Your task to perform on an android device: What's the news in French Guiana? Image 0: 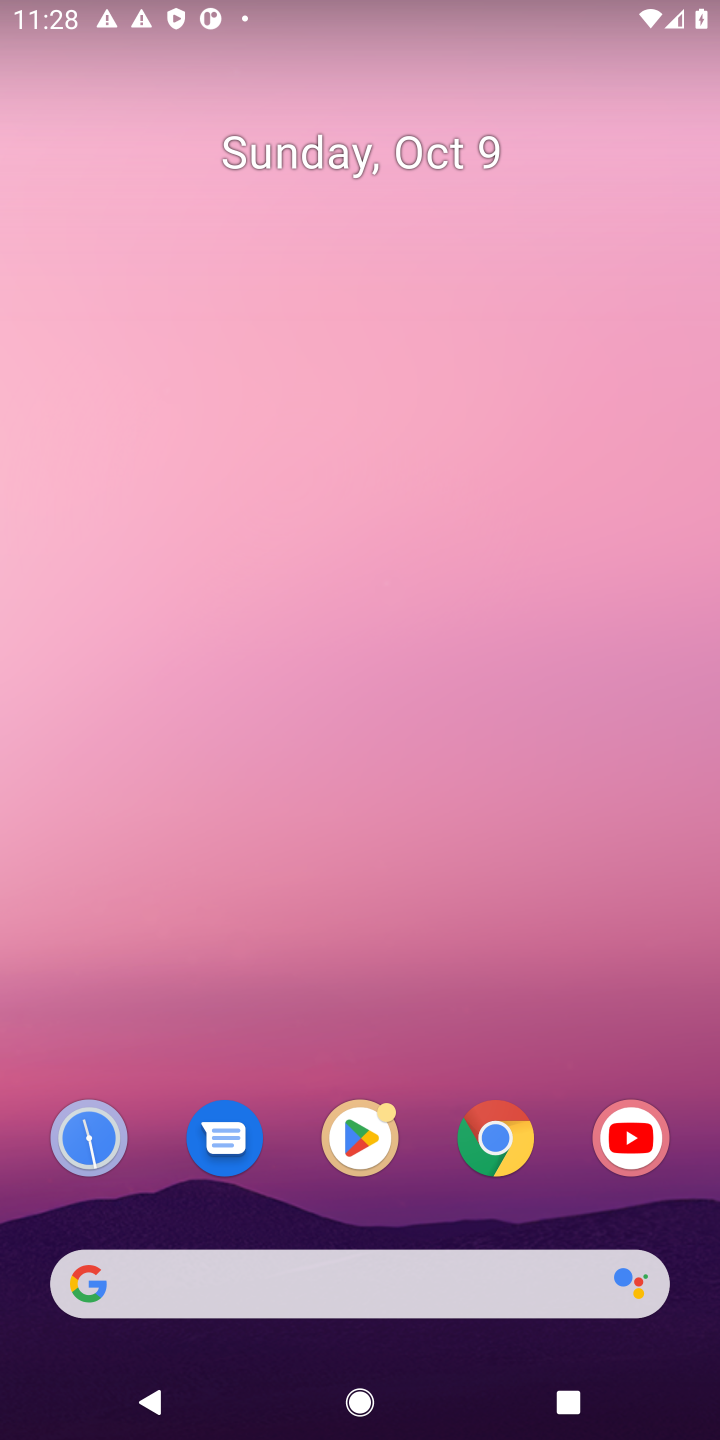
Step 0: click (693, 374)
Your task to perform on an android device: What's the news in French Guiana? Image 1: 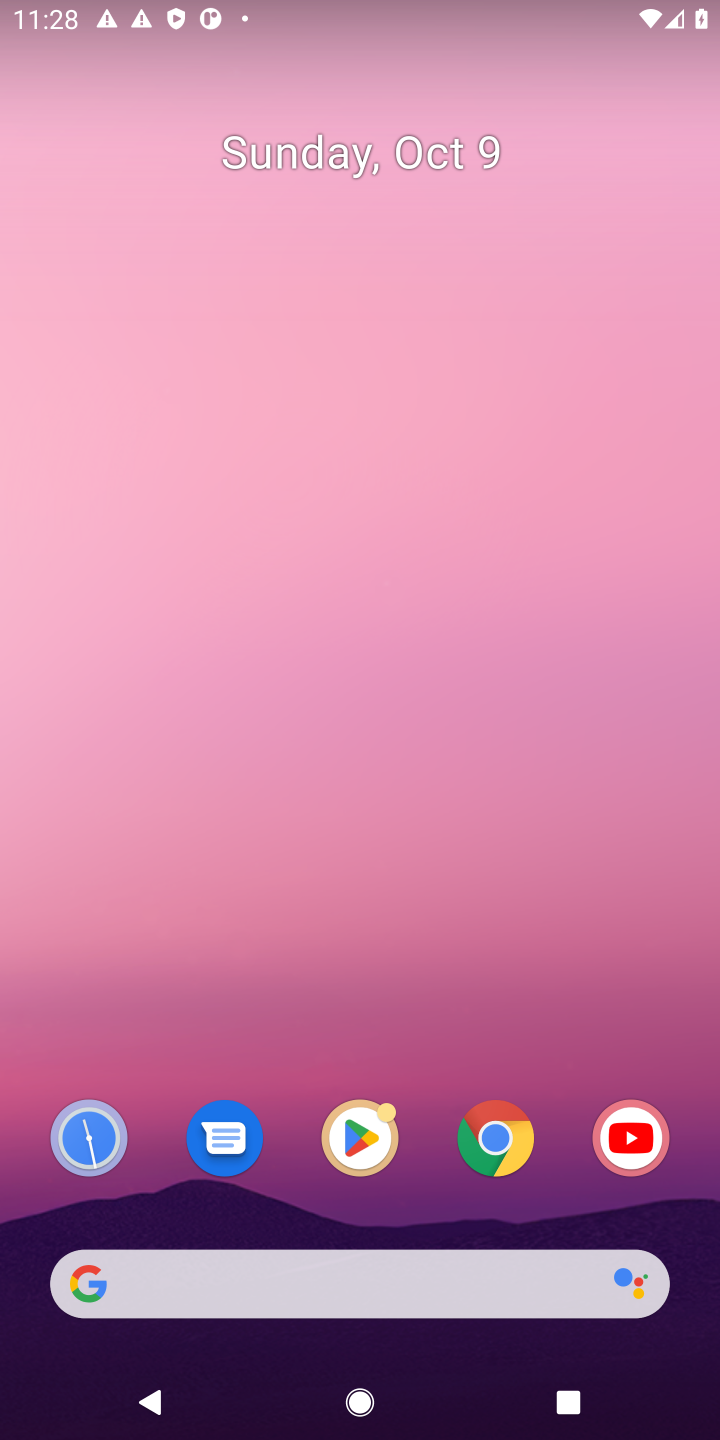
Step 1: click (504, 1151)
Your task to perform on an android device: What's the news in French Guiana? Image 2: 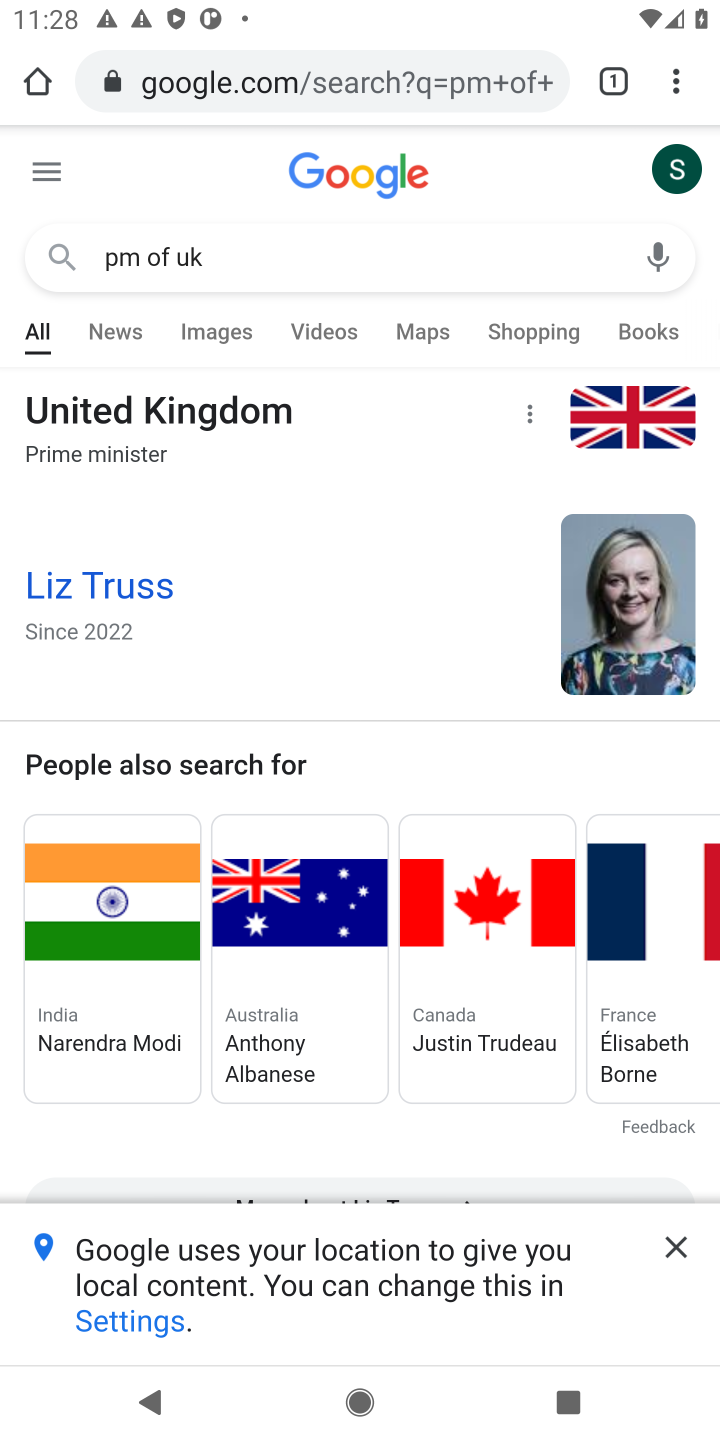
Step 2: click (290, 70)
Your task to perform on an android device: What's the news in French Guiana? Image 3: 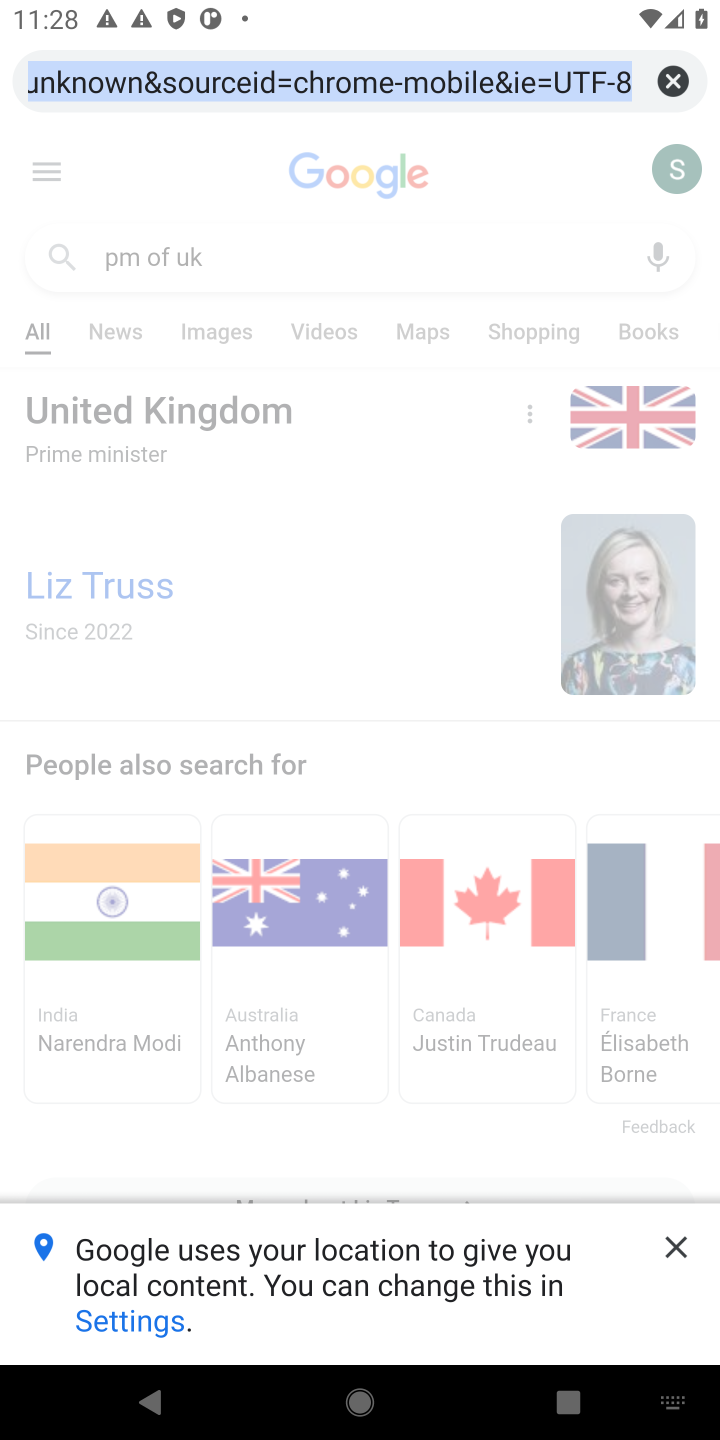
Step 3: type "french guiana"
Your task to perform on an android device: What's the news in French Guiana? Image 4: 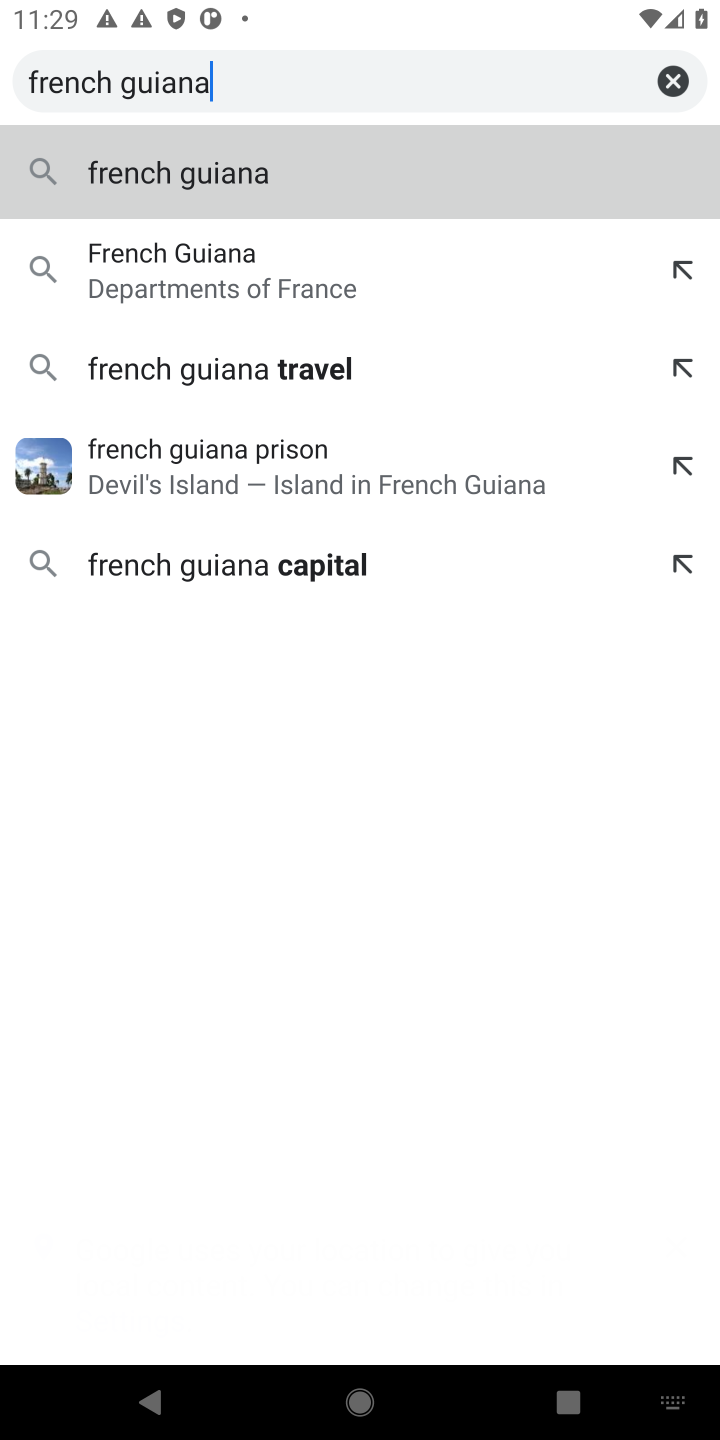
Step 4: click (282, 164)
Your task to perform on an android device: What's the news in French Guiana? Image 5: 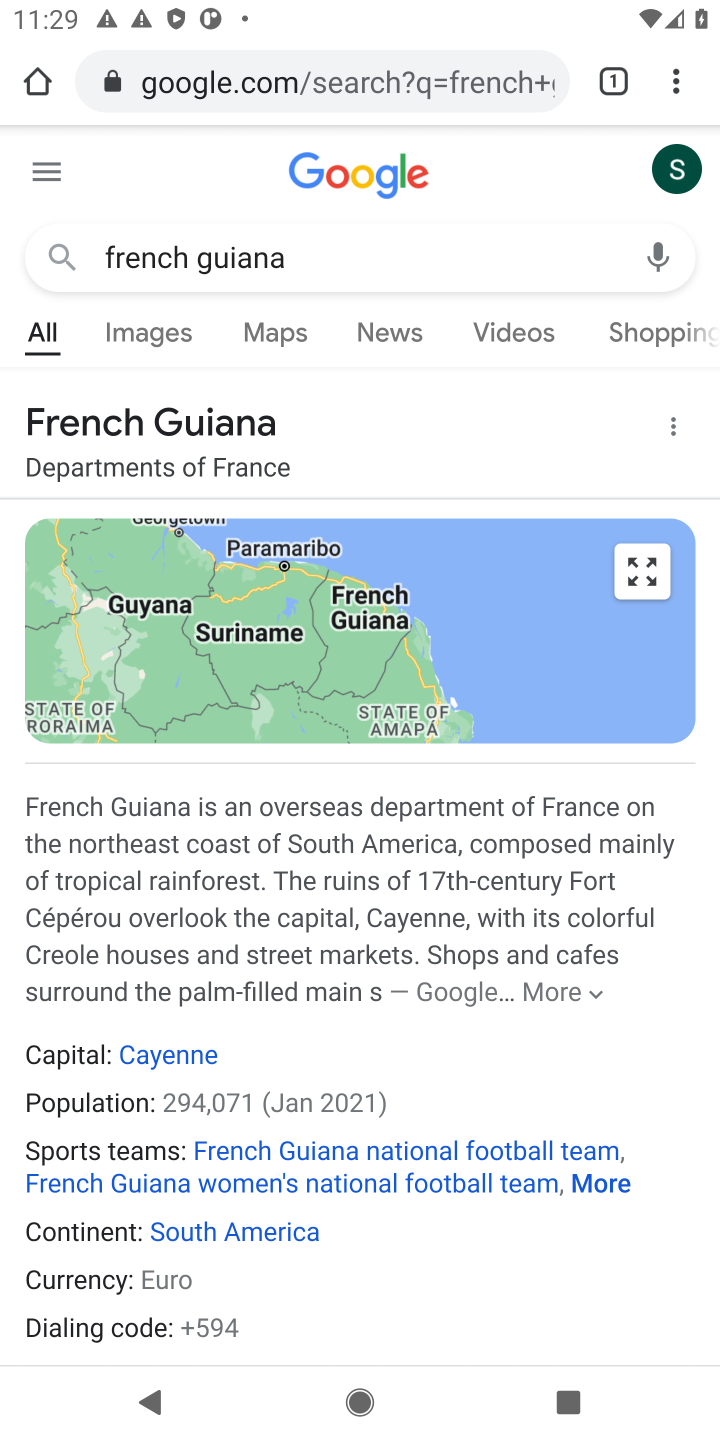
Step 5: click (383, 331)
Your task to perform on an android device: What's the news in French Guiana? Image 6: 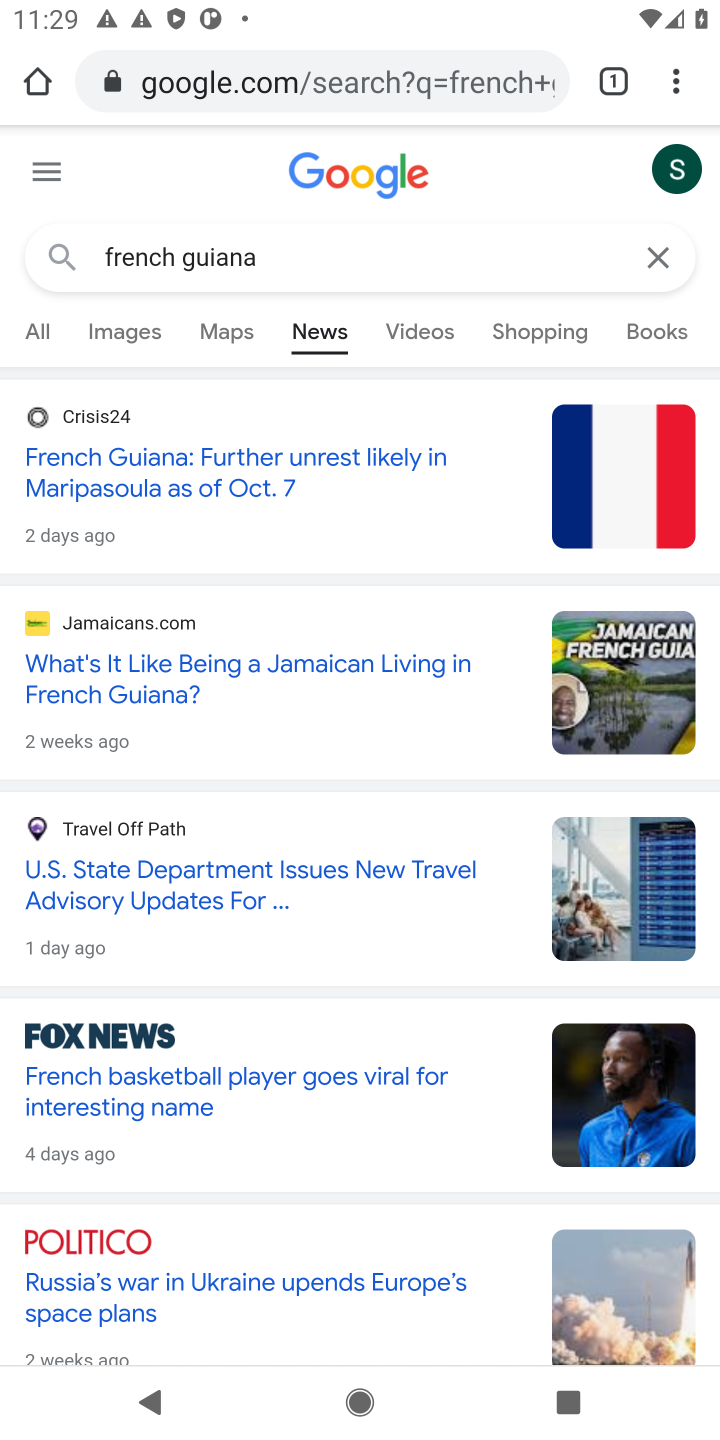
Step 6: task complete